Your task to perform on an android device: show emergency info Image 0: 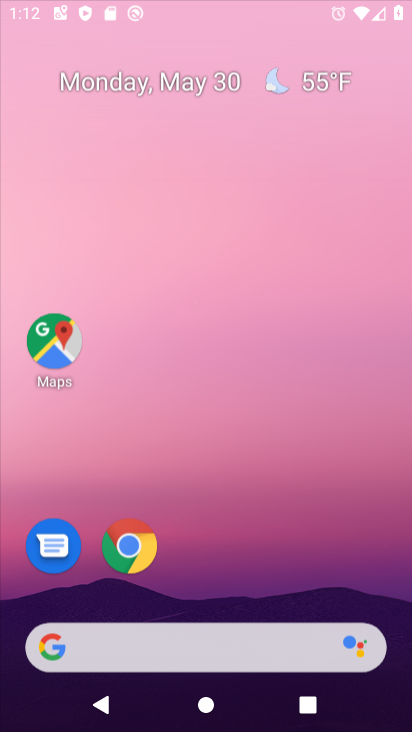
Step 0: press home button
Your task to perform on an android device: show emergency info Image 1: 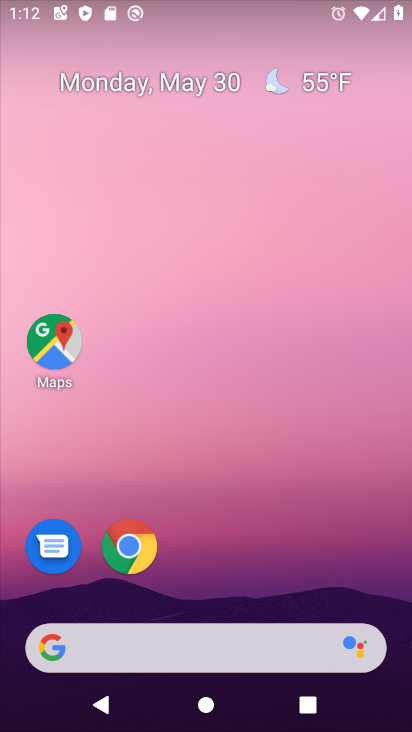
Step 1: drag from (262, 609) to (267, 130)
Your task to perform on an android device: show emergency info Image 2: 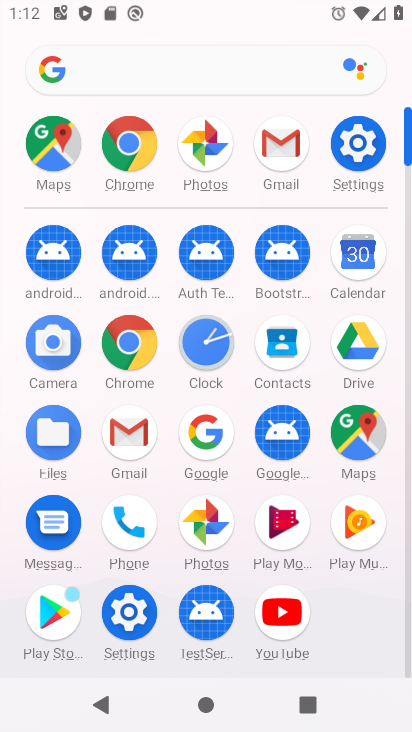
Step 2: click (357, 155)
Your task to perform on an android device: show emergency info Image 3: 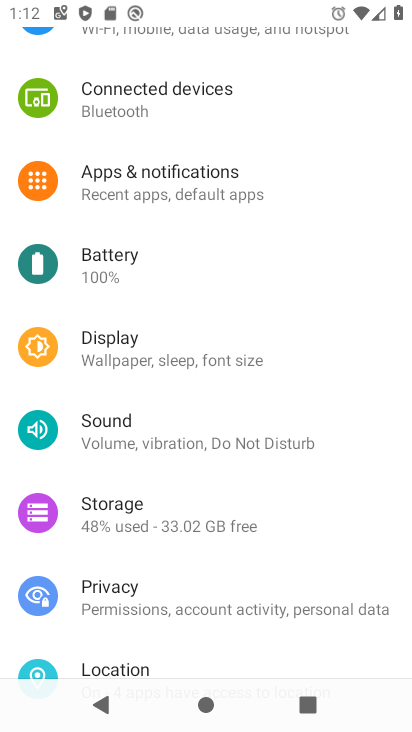
Step 3: drag from (304, 608) to (314, 17)
Your task to perform on an android device: show emergency info Image 4: 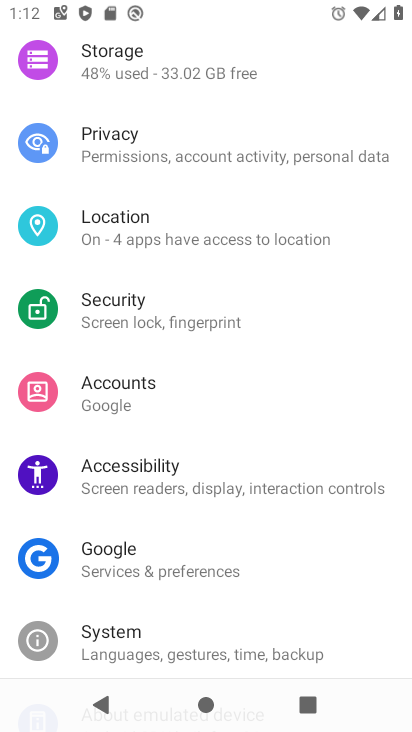
Step 4: drag from (259, 626) to (282, 58)
Your task to perform on an android device: show emergency info Image 5: 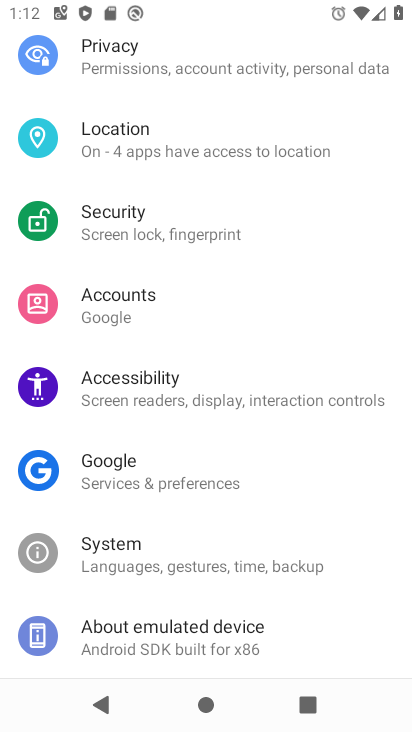
Step 5: click (141, 650)
Your task to perform on an android device: show emergency info Image 6: 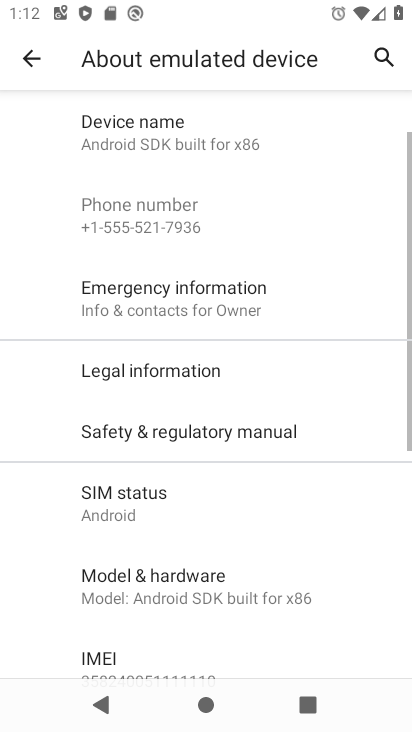
Step 6: click (159, 280)
Your task to perform on an android device: show emergency info Image 7: 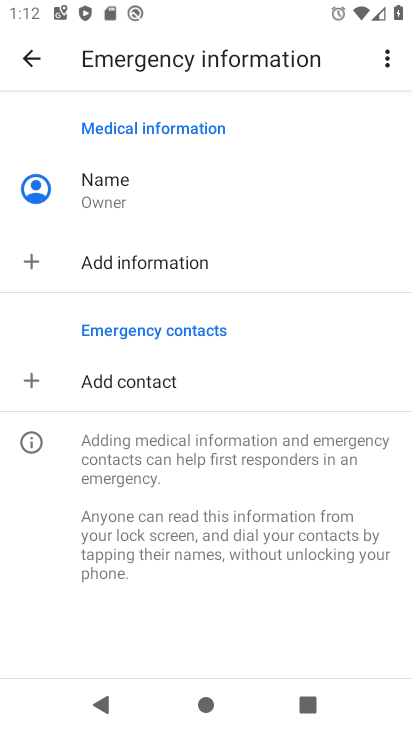
Step 7: task complete